Your task to perform on an android device: Open battery settings Image 0: 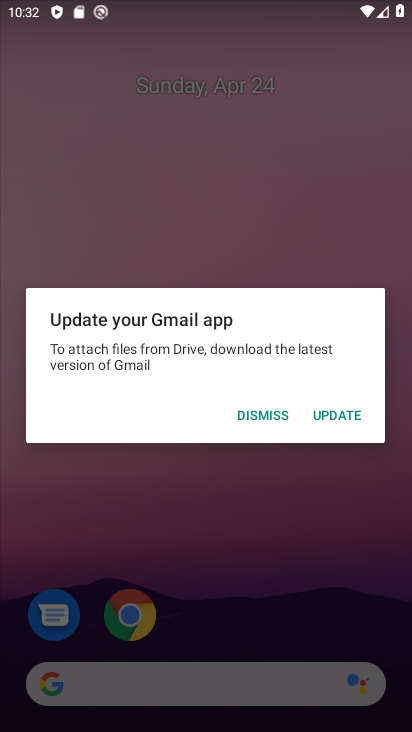
Step 0: press home button
Your task to perform on an android device: Open battery settings Image 1: 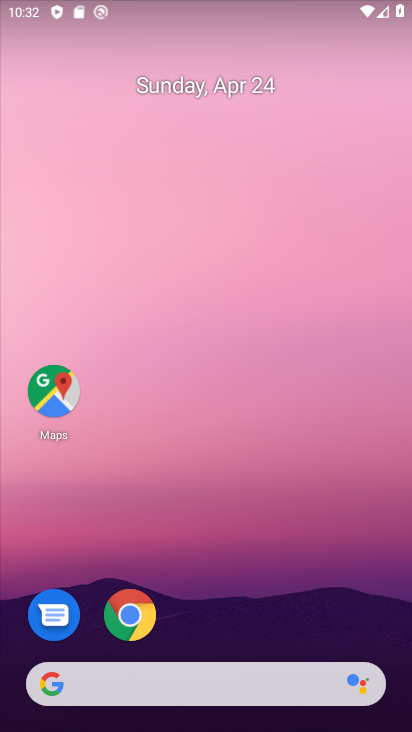
Step 1: drag from (210, 645) to (292, 47)
Your task to perform on an android device: Open battery settings Image 2: 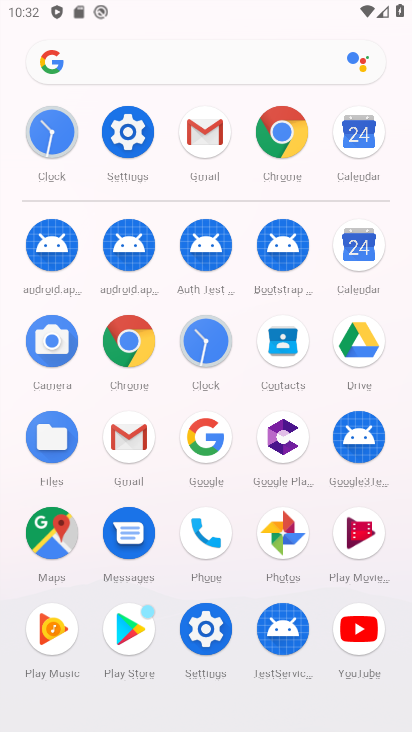
Step 2: click (125, 130)
Your task to perform on an android device: Open battery settings Image 3: 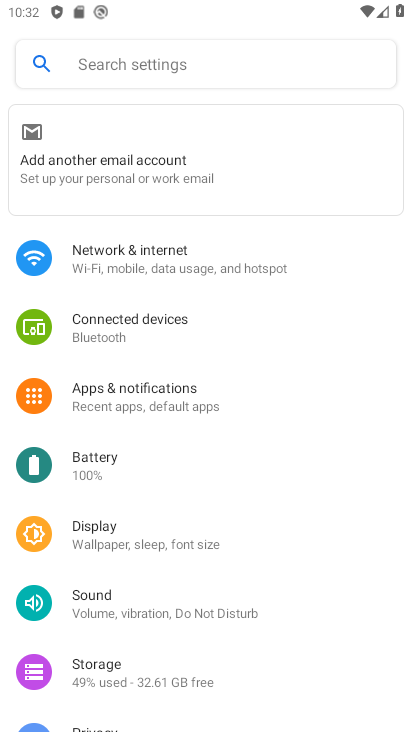
Step 3: click (121, 464)
Your task to perform on an android device: Open battery settings Image 4: 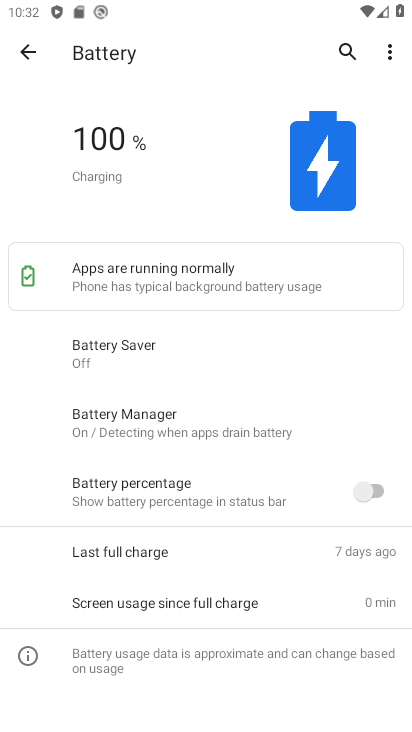
Step 4: drag from (193, 667) to (264, 278)
Your task to perform on an android device: Open battery settings Image 5: 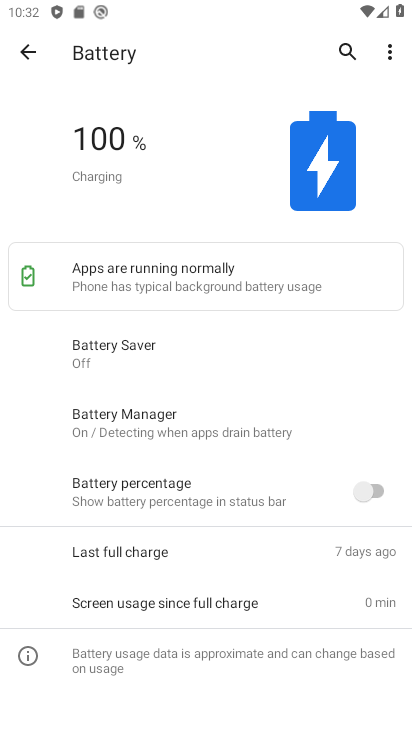
Step 5: click (31, 54)
Your task to perform on an android device: Open battery settings Image 6: 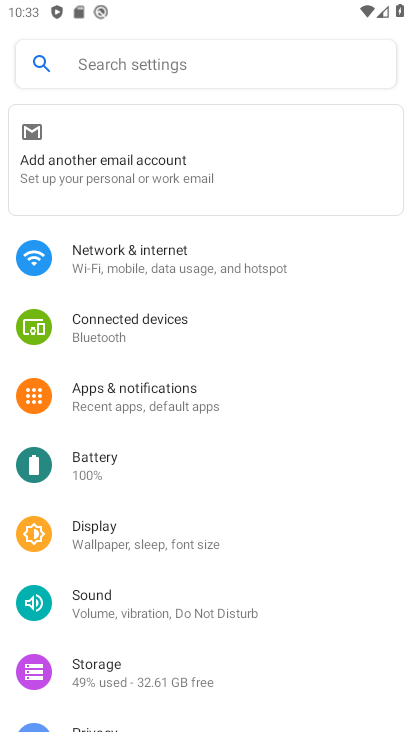
Step 6: click (125, 462)
Your task to perform on an android device: Open battery settings Image 7: 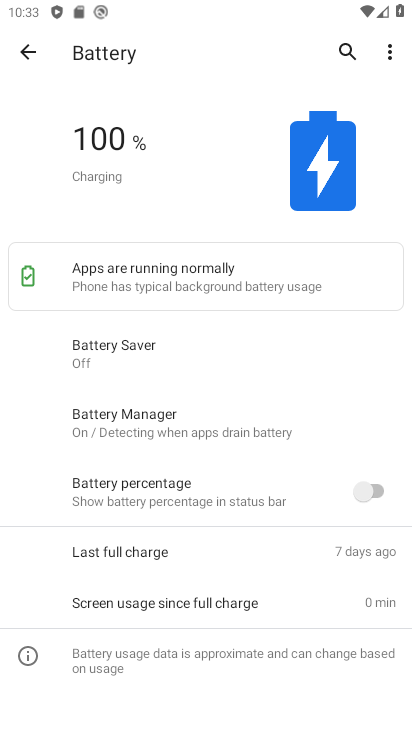
Step 7: task complete